Your task to perform on an android device: Search for pizza restaurants on Maps Image 0: 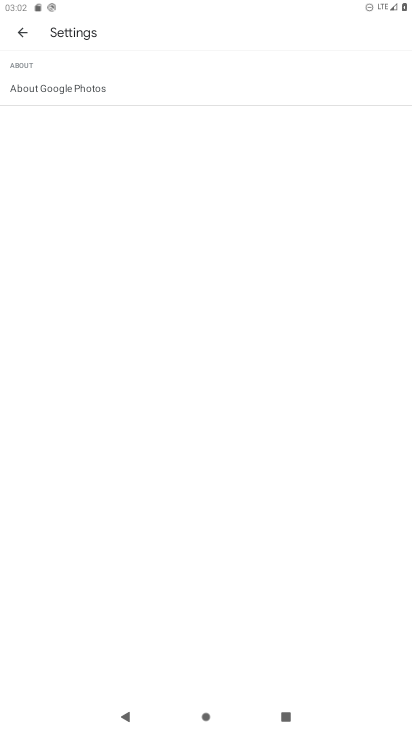
Step 0: click (16, 32)
Your task to perform on an android device: Search for pizza restaurants on Maps Image 1: 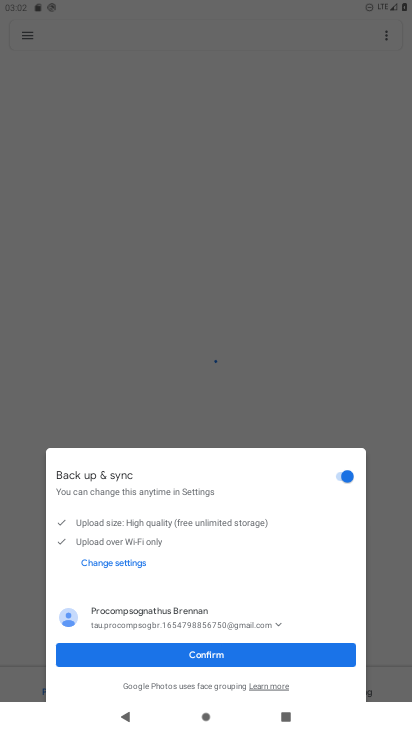
Step 1: press home button
Your task to perform on an android device: Search for pizza restaurants on Maps Image 2: 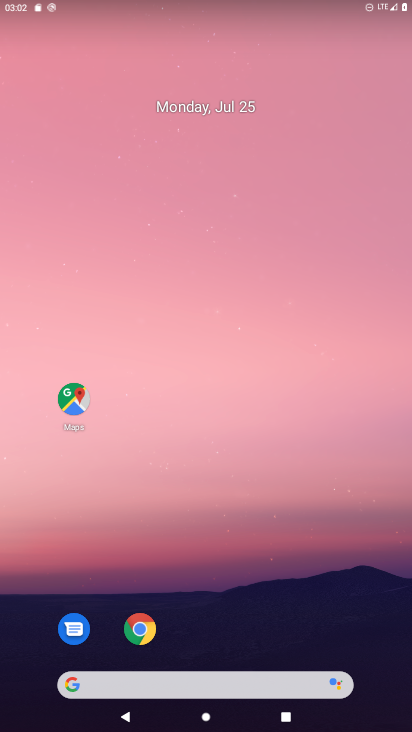
Step 2: click (79, 393)
Your task to perform on an android device: Search for pizza restaurants on Maps Image 3: 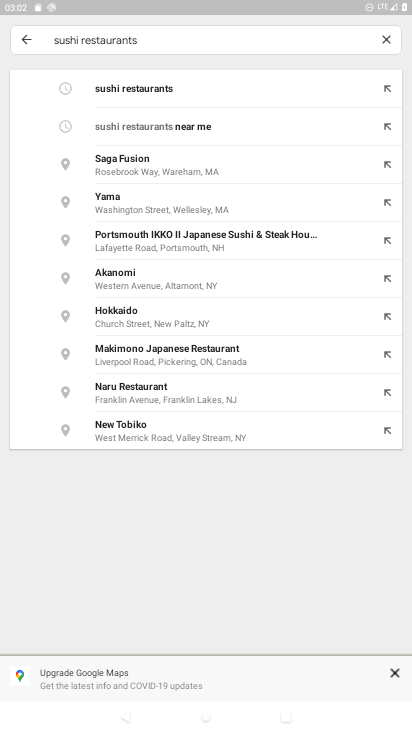
Step 3: click (18, 35)
Your task to perform on an android device: Search for pizza restaurants on Maps Image 4: 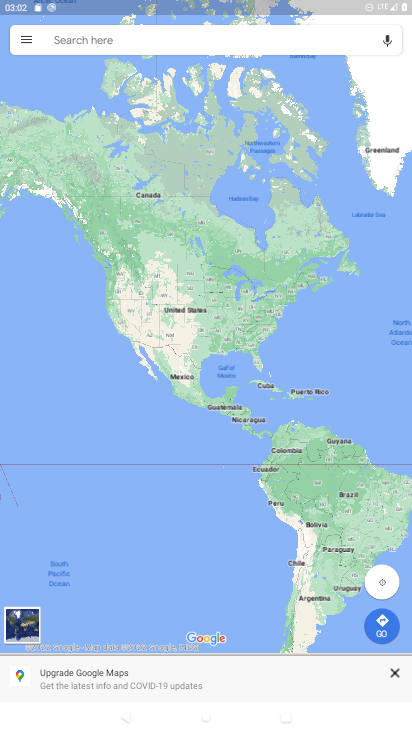
Step 4: click (194, 37)
Your task to perform on an android device: Search for pizza restaurants on Maps Image 5: 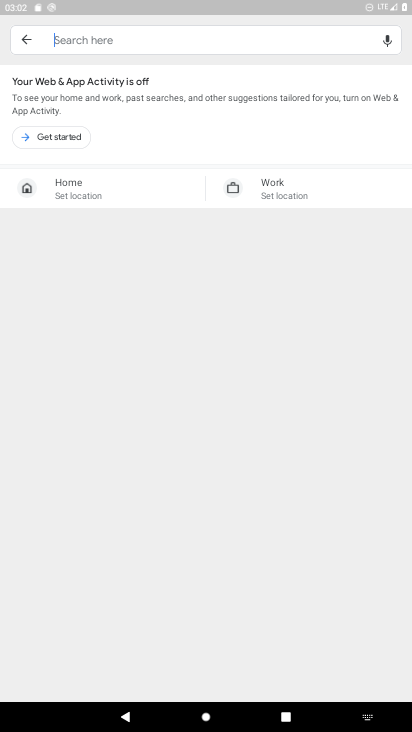
Step 5: type "pizza restaurants "
Your task to perform on an android device: Search for pizza restaurants on Maps Image 6: 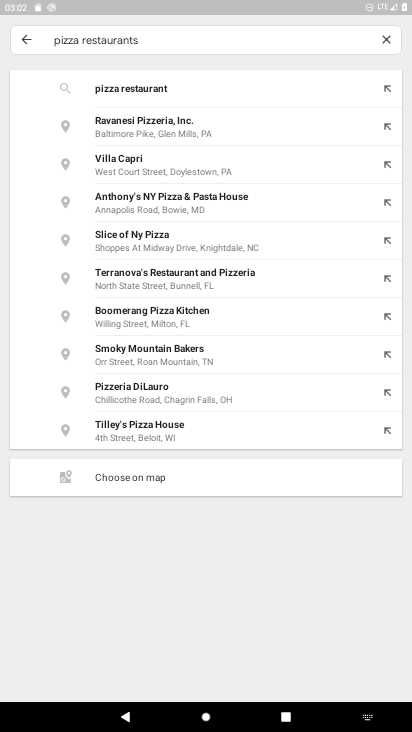
Step 6: click (112, 84)
Your task to perform on an android device: Search for pizza restaurants on Maps Image 7: 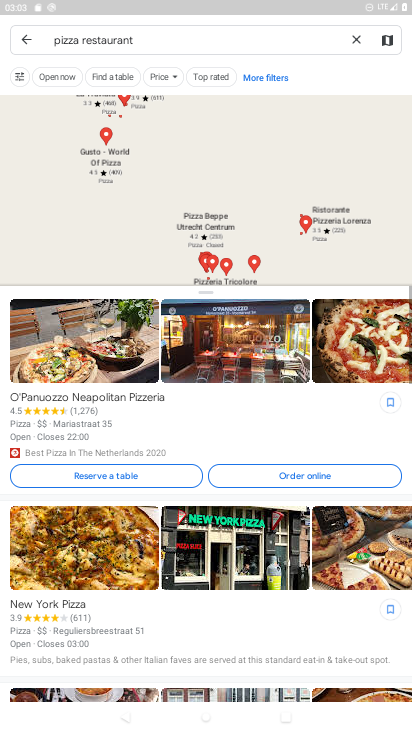
Step 7: task complete